Your task to perform on an android device: add a label to a message in the gmail app Image 0: 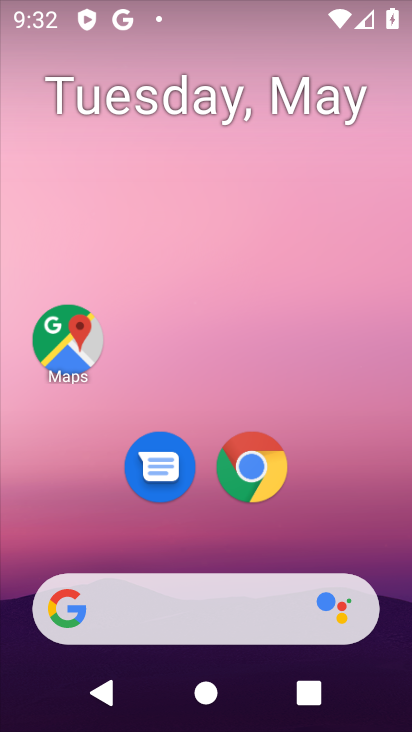
Step 0: drag from (359, 525) to (243, 0)
Your task to perform on an android device: add a label to a message in the gmail app Image 1: 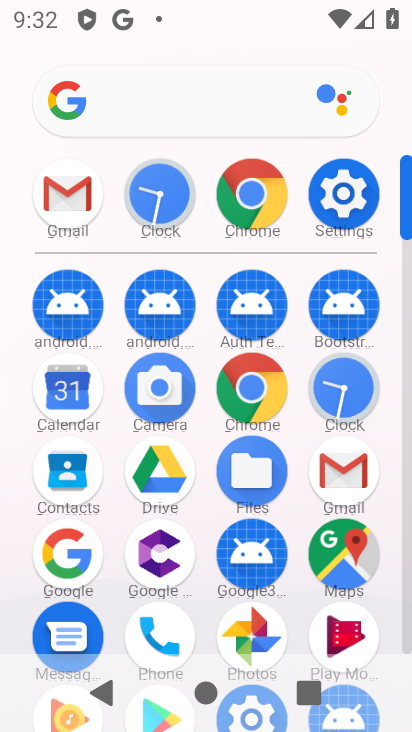
Step 1: drag from (19, 570) to (21, 214)
Your task to perform on an android device: add a label to a message in the gmail app Image 2: 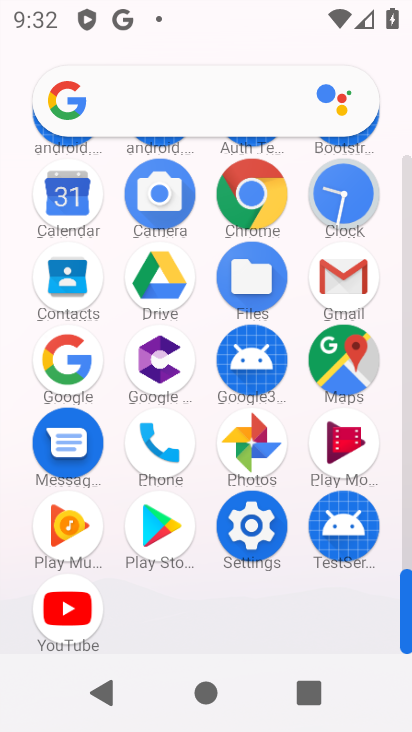
Step 2: click (345, 269)
Your task to perform on an android device: add a label to a message in the gmail app Image 3: 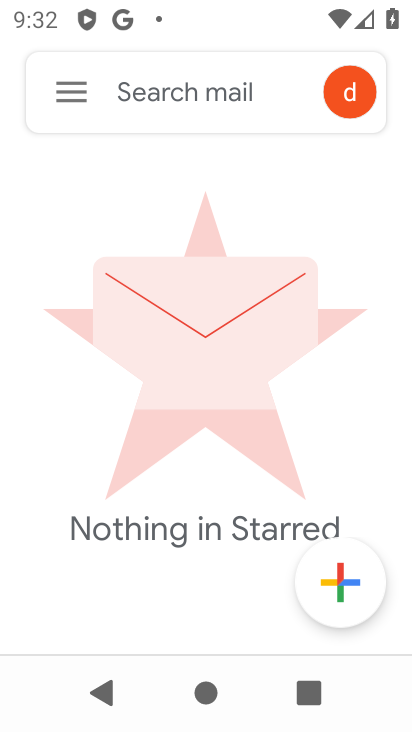
Step 3: click (60, 87)
Your task to perform on an android device: add a label to a message in the gmail app Image 4: 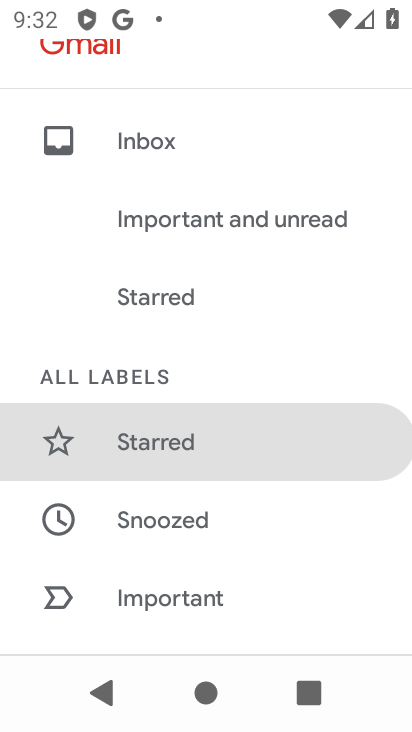
Step 4: drag from (214, 226) to (189, 555)
Your task to perform on an android device: add a label to a message in the gmail app Image 5: 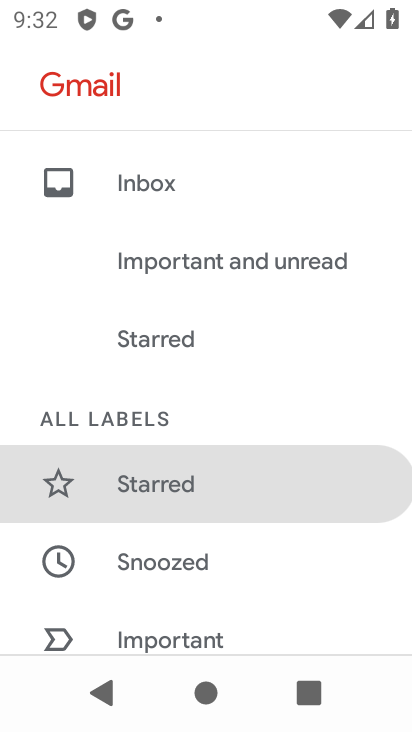
Step 5: click (134, 173)
Your task to perform on an android device: add a label to a message in the gmail app Image 6: 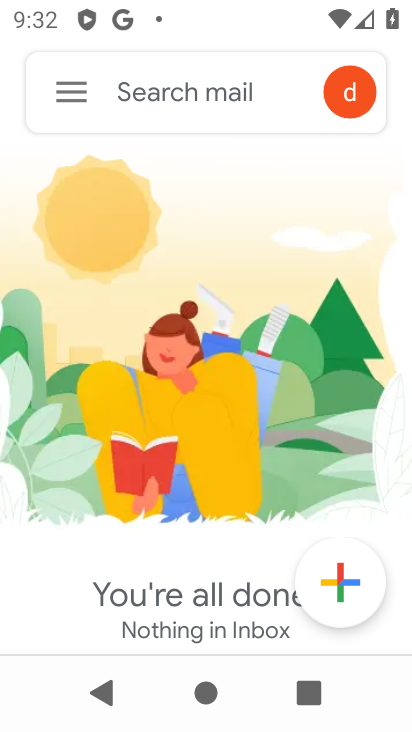
Step 6: click (56, 99)
Your task to perform on an android device: add a label to a message in the gmail app Image 7: 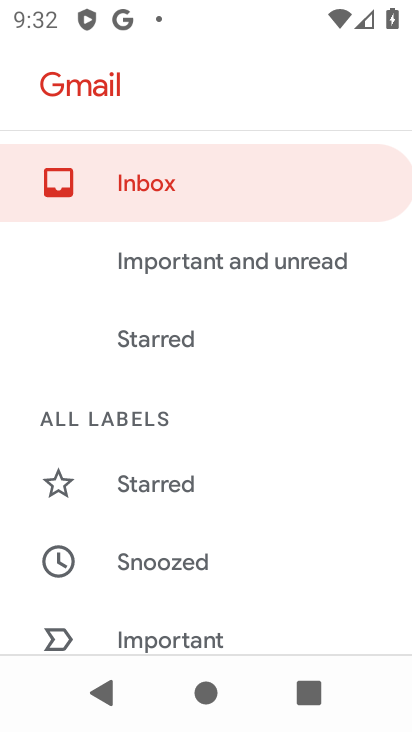
Step 7: drag from (187, 560) to (211, 190)
Your task to perform on an android device: add a label to a message in the gmail app Image 8: 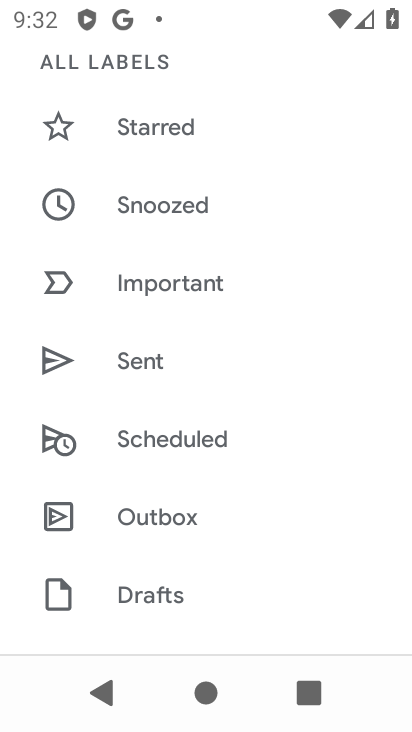
Step 8: drag from (205, 513) to (213, 133)
Your task to perform on an android device: add a label to a message in the gmail app Image 9: 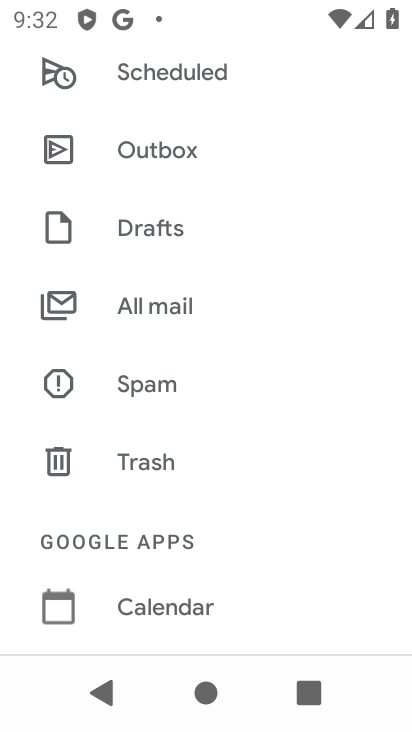
Step 9: click (182, 317)
Your task to perform on an android device: add a label to a message in the gmail app Image 10: 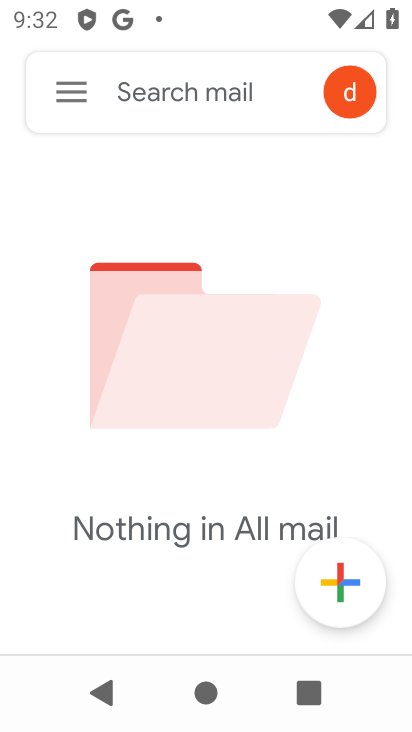
Step 10: task complete